Your task to perform on an android device: toggle wifi Image 0: 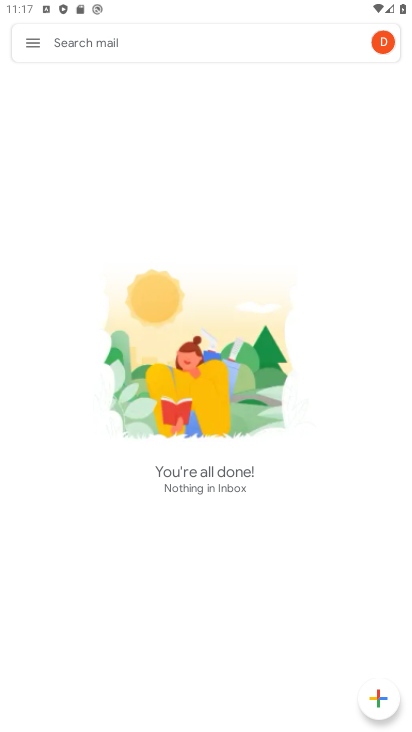
Step 0: press home button
Your task to perform on an android device: toggle wifi Image 1: 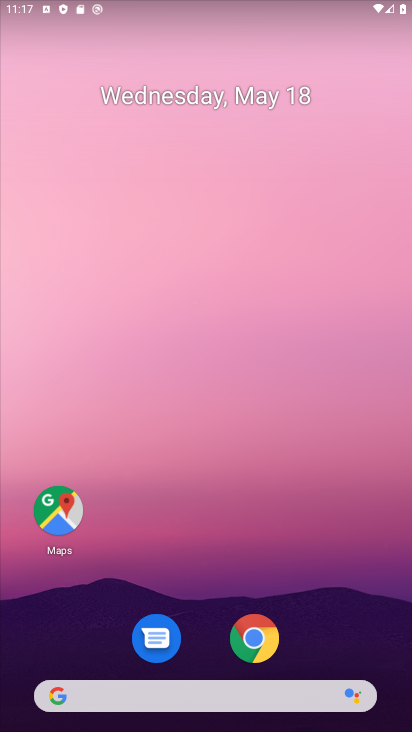
Step 1: drag from (229, 47) to (240, 466)
Your task to perform on an android device: toggle wifi Image 2: 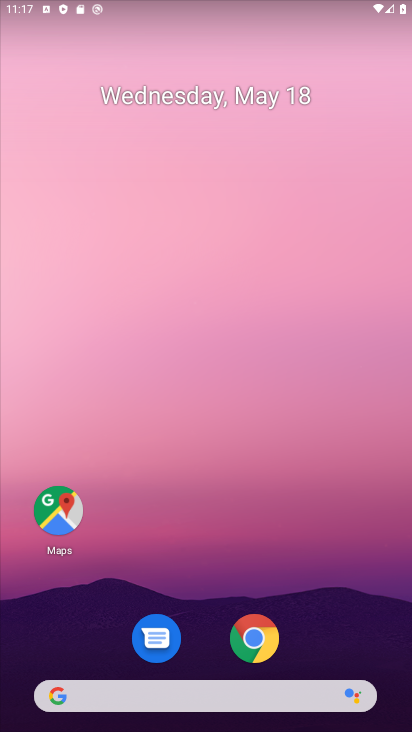
Step 2: drag from (175, 9) to (258, 400)
Your task to perform on an android device: toggle wifi Image 3: 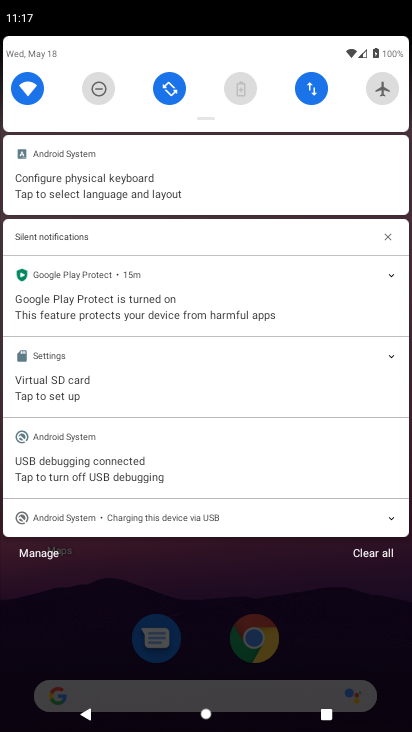
Step 3: click (26, 94)
Your task to perform on an android device: toggle wifi Image 4: 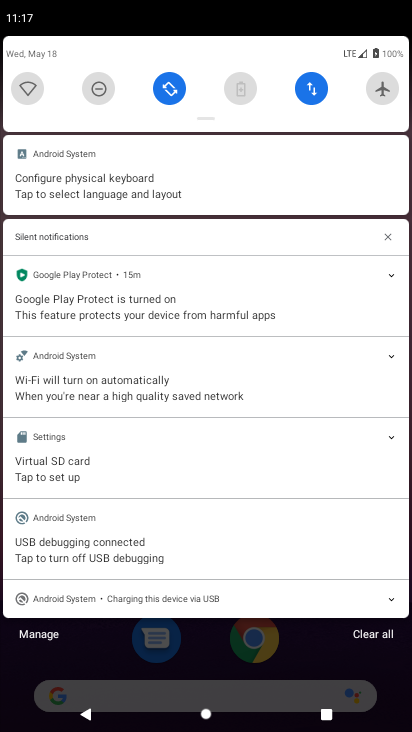
Step 4: task complete